Your task to perform on an android device: turn on airplane mode Image 0: 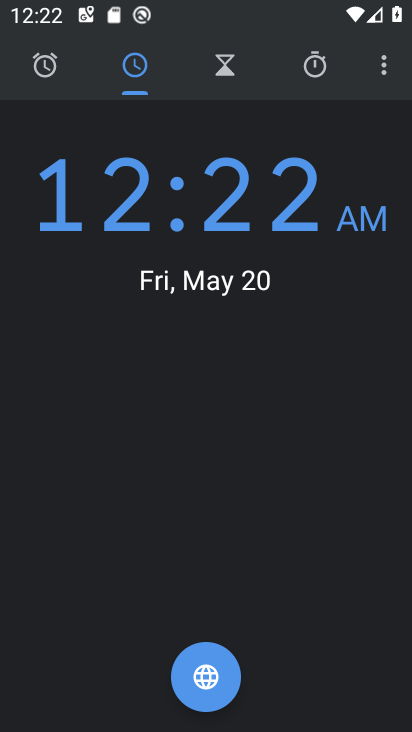
Step 0: press home button
Your task to perform on an android device: turn on airplane mode Image 1: 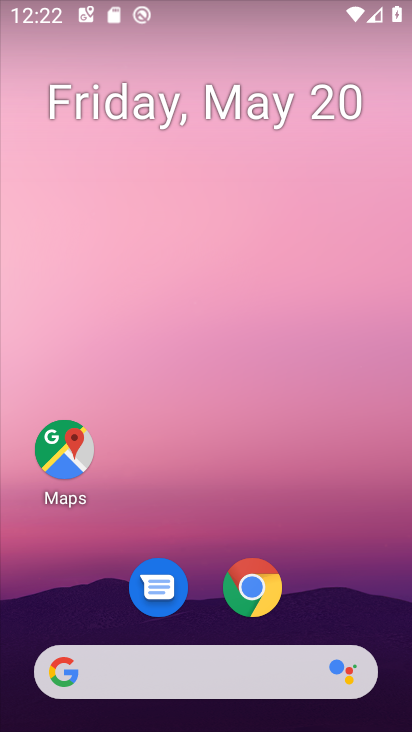
Step 1: drag from (344, 555) to (328, 177)
Your task to perform on an android device: turn on airplane mode Image 2: 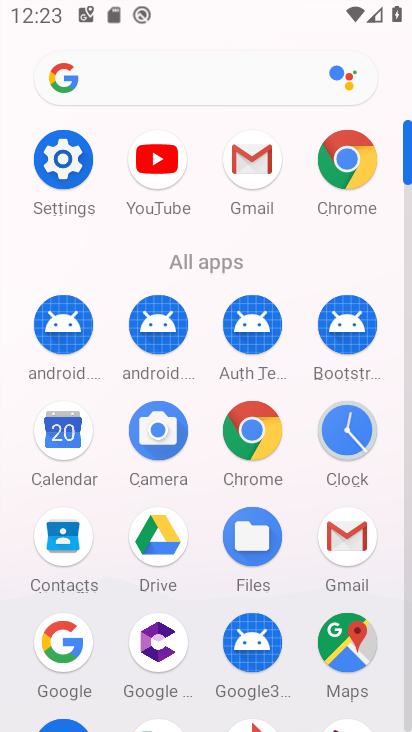
Step 2: click (44, 180)
Your task to perform on an android device: turn on airplane mode Image 3: 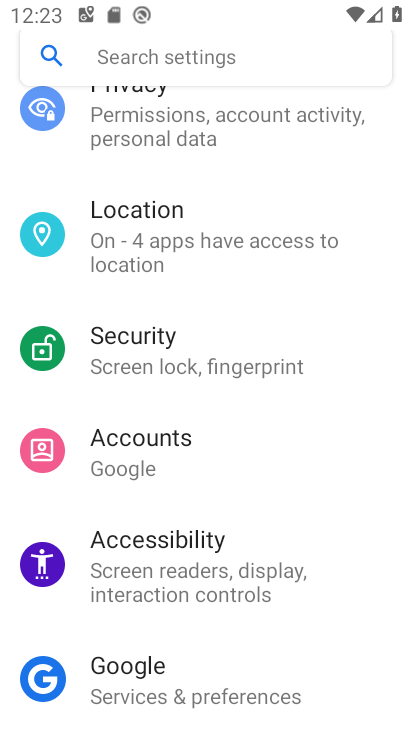
Step 3: drag from (349, 534) to (348, 412)
Your task to perform on an android device: turn on airplane mode Image 4: 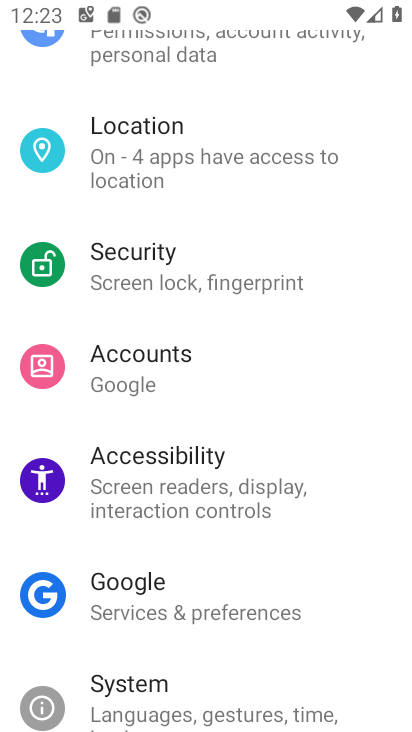
Step 4: drag from (373, 582) to (364, 437)
Your task to perform on an android device: turn on airplane mode Image 5: 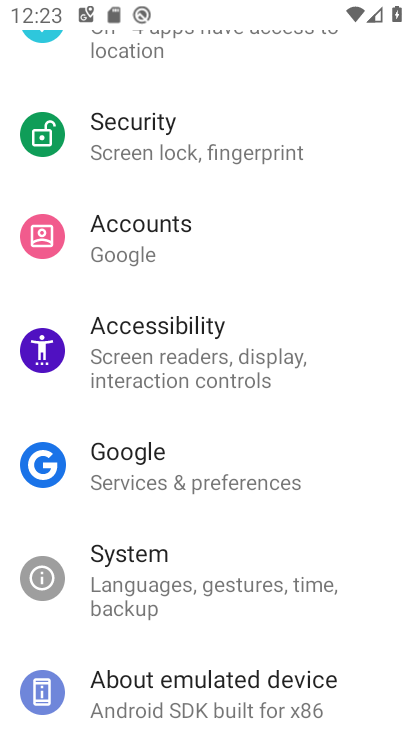
Step 5: drag from (342, 585) to (342, 448)
Your task to perform on an android device: turn on airplane mode Image 6: 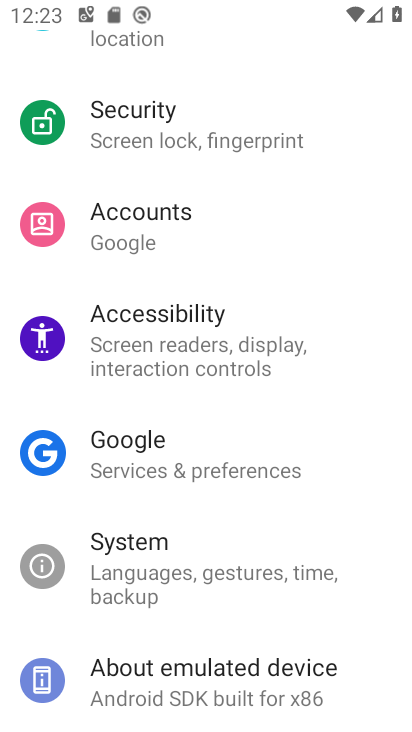
Step 6: drag from (352, 362) to (352, 467)
Your task to perform on an android device: turn on airplane mode Image 7: 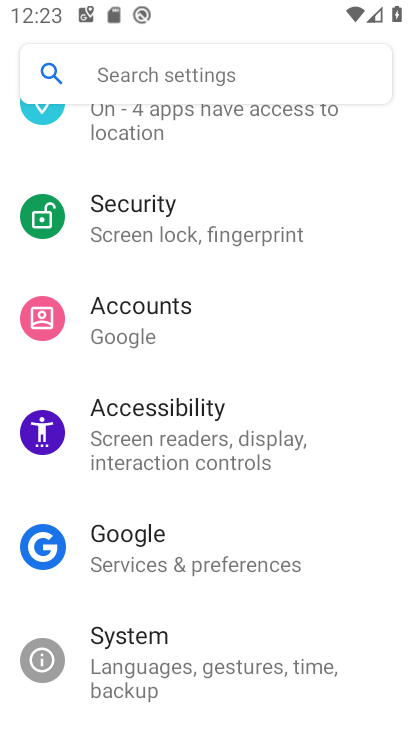
Step 7: drag from (344, 323) to (346, 426)
Your task to perform on an android device: turn on airplane mode Image 8: 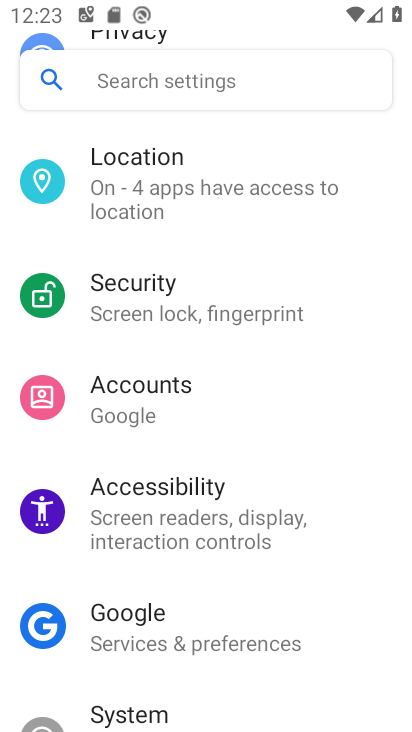
Step 8: drag from (355, 312) to (356, 383)
Your task to perform on an android device: turn on airplane mode Image 9: 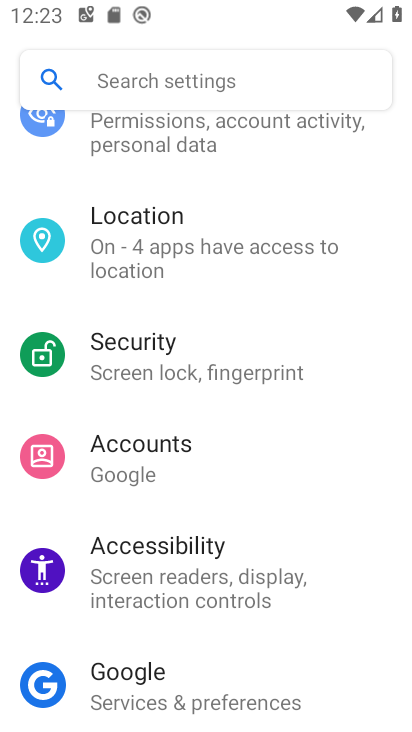
Step 9: drag from (361, 330) to (360, 410)
Your task to perform on an android device: turn on airplane mode Image 10: 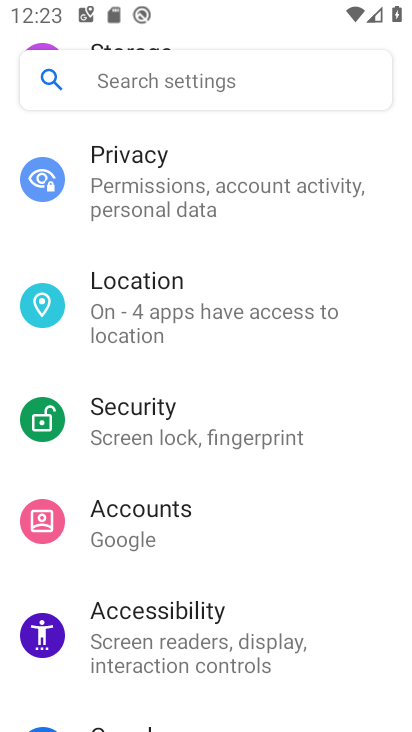
Step 10: drag from (360, 282) to (364, 390)
Your task to perform on an android device: turn on airplane mode Image 11: 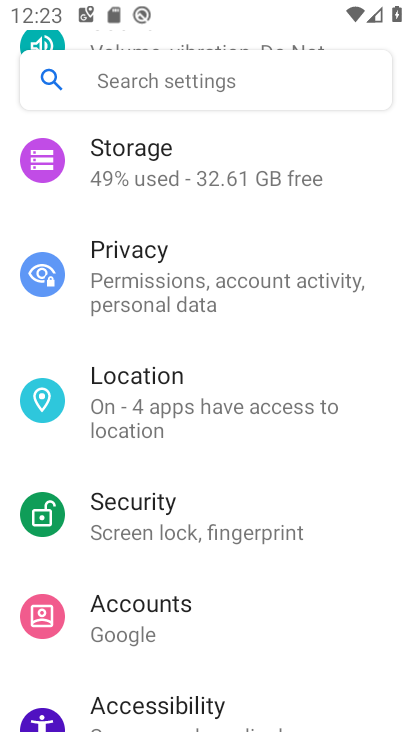
Step 11: drag from (350, 240) to (355, 364)
Your task to perform on an android device: turn on airplane mode Image 12: 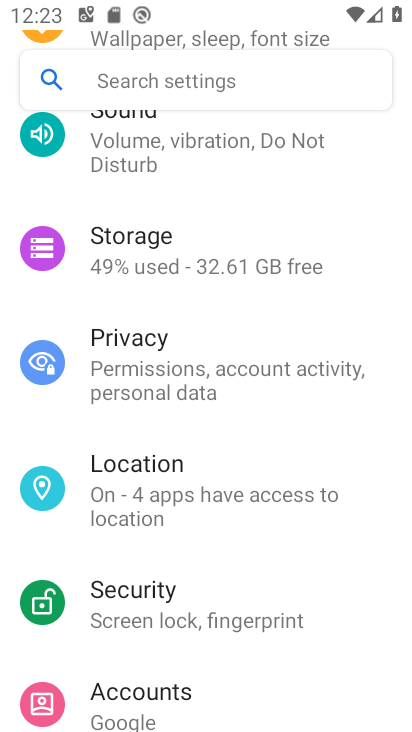
Step 12: drag from (349, 229) to (355, 365)
Your task to perform on an android device: turn on airplane mode Image 13: 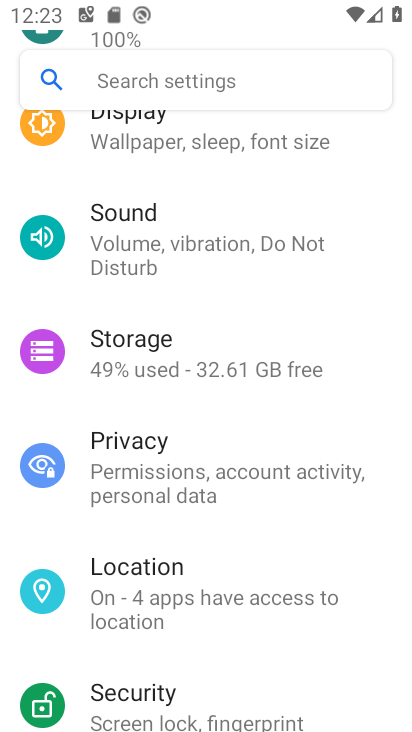
Step 13: drag from (356, 240) to (361, 334)
Your task to perform on an android device: turn on airplane mode Image 14: 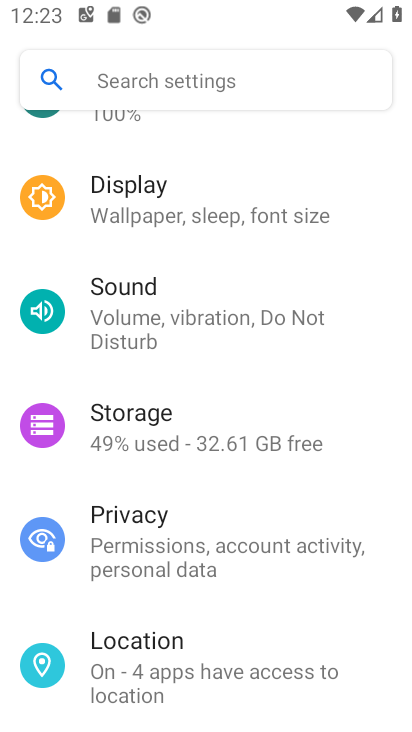
Step 14: drag from (363, 222) to (359, 317)
Your task to perform on an android device: turn on airplane mode Image 15: 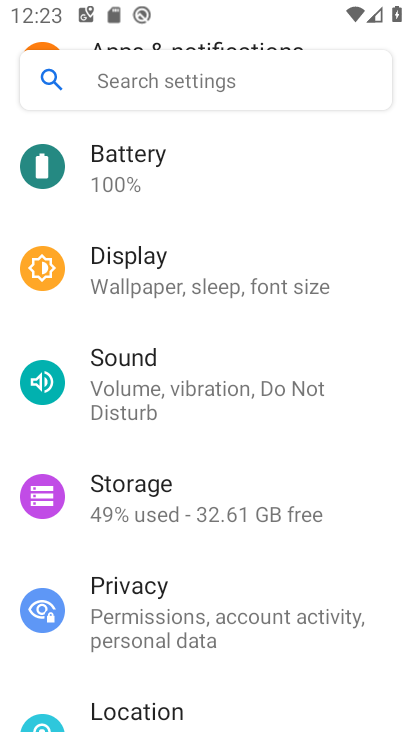
Step 15: drag from (359, 255) to (362, 349)
Your task to perform on an android device: turn on airplane mode Image 16: 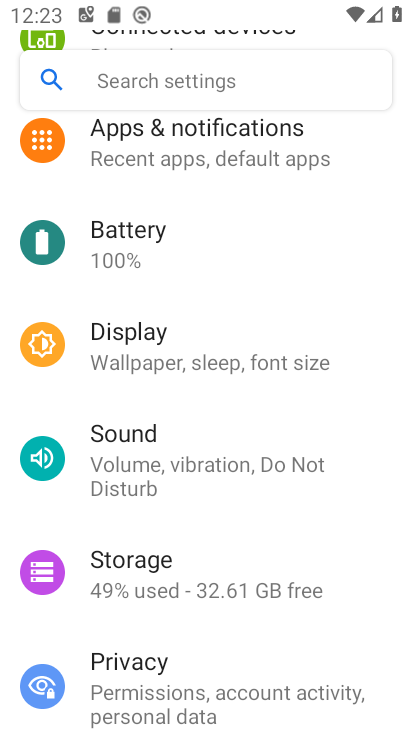
Step 16: drag from (355, 231) to (355, 339)
Your task to perform on an android device: turn on airplane mode Image 17: 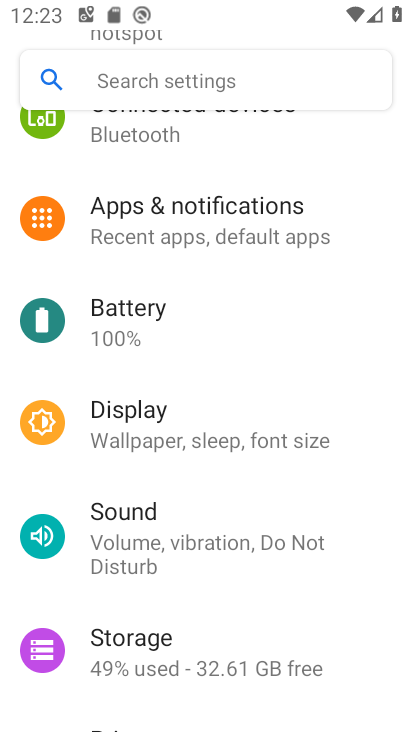
Step 17: drag from (348, 256) to (350, 303)
Your task to perform on an android device: turn on airplane mode Image 18: 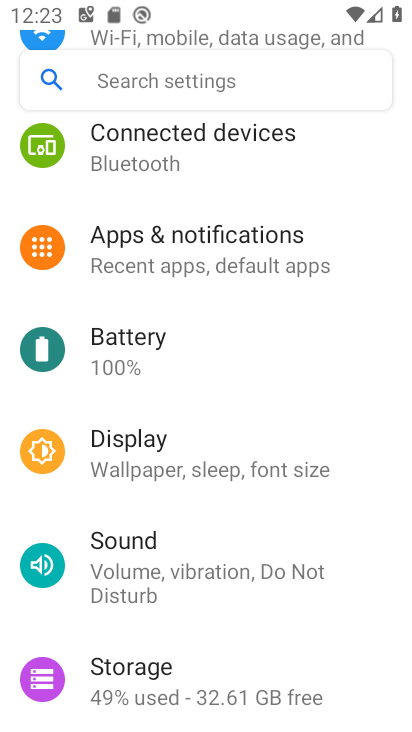
Step 18: drag from (343, 189) to (347, 304)
Your task to perform on an android device: turn on airplane mode Image 19: 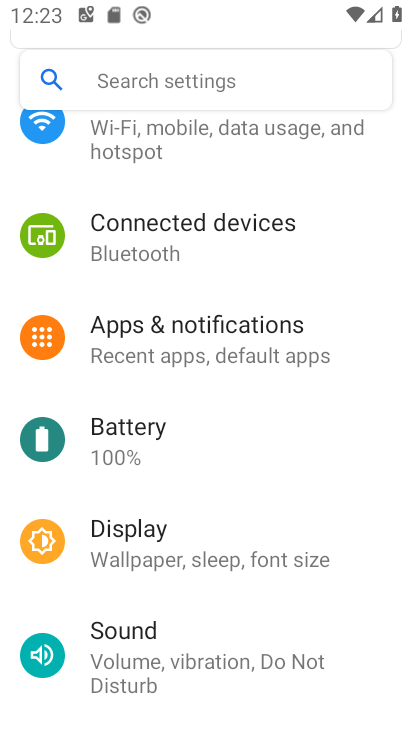
Step 19: drag from (336, 184) to (334, 286)
Your task to perform on an android device: turn on airplane mode Image 20: 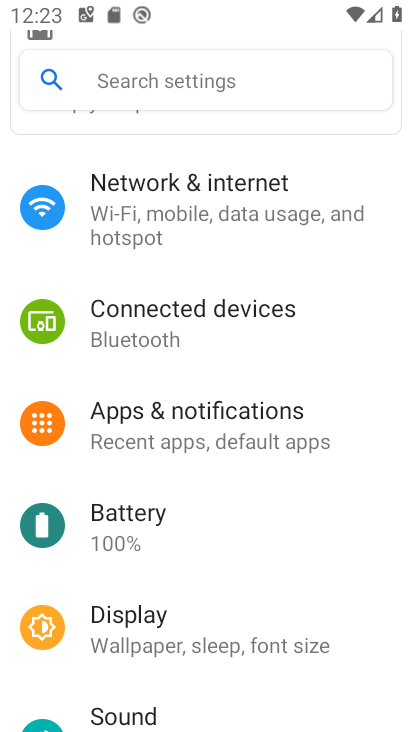
Step 20: click (263, 218)
Your task to perform on an android device: turn on airplane mode Image 21: 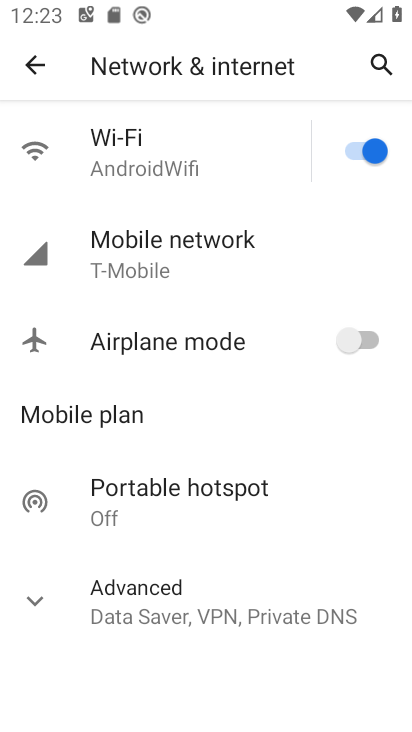
Step 21: click (354, 356)
Your task to perform on an android device: turn on airplane mode Image 22: 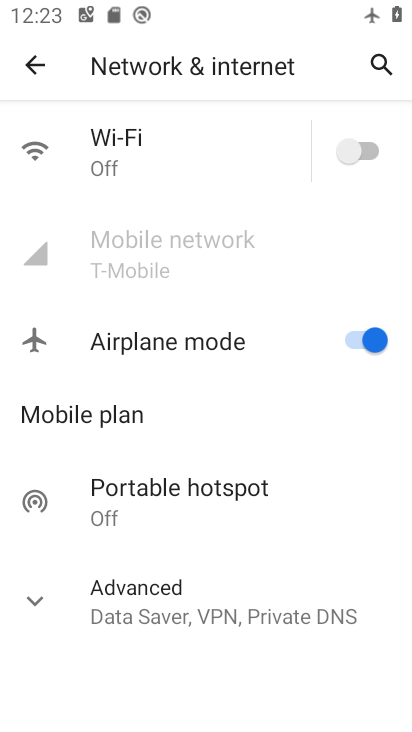
Step 22: task complete